Your task to perform on an android device: uninstall "Mercado Libre" Image 0: 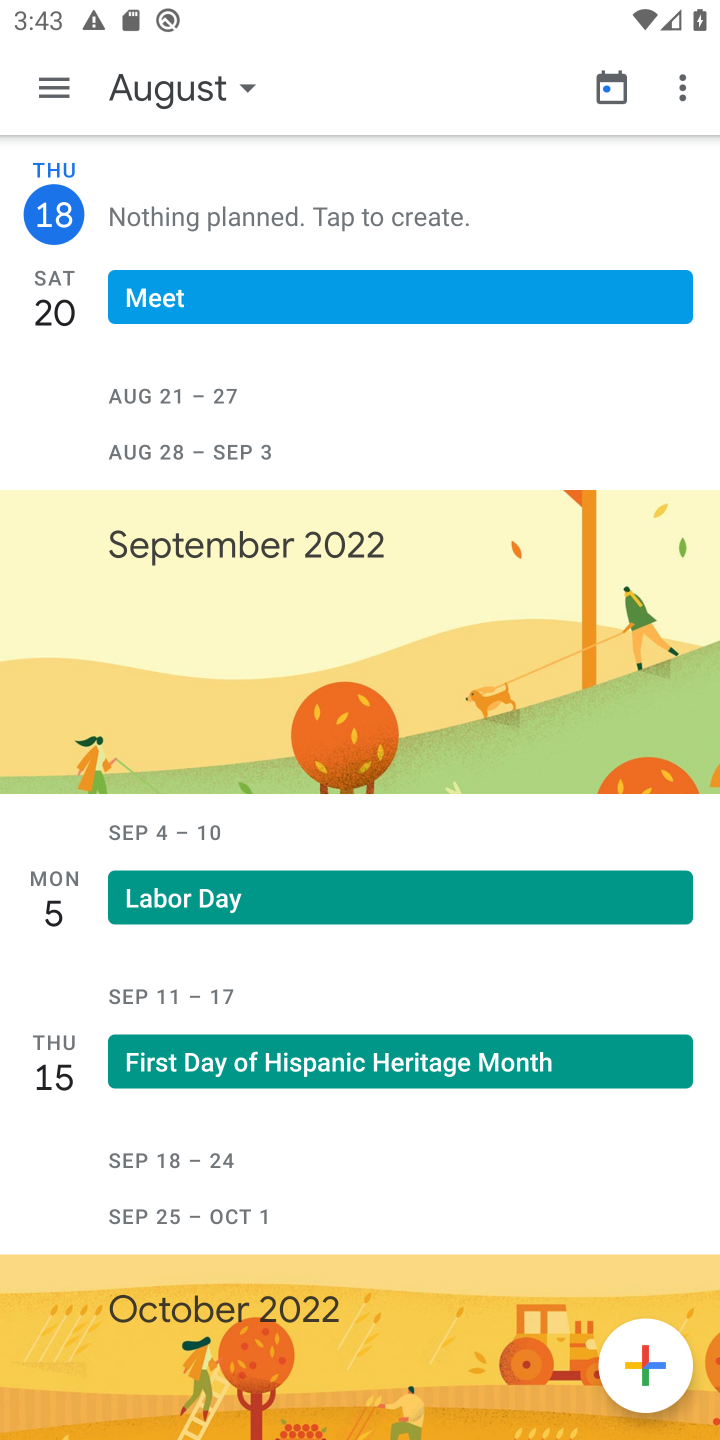
Step 0: press home button
Your task to perform on an android device: uninstall "Mercado Libre" Image 1: 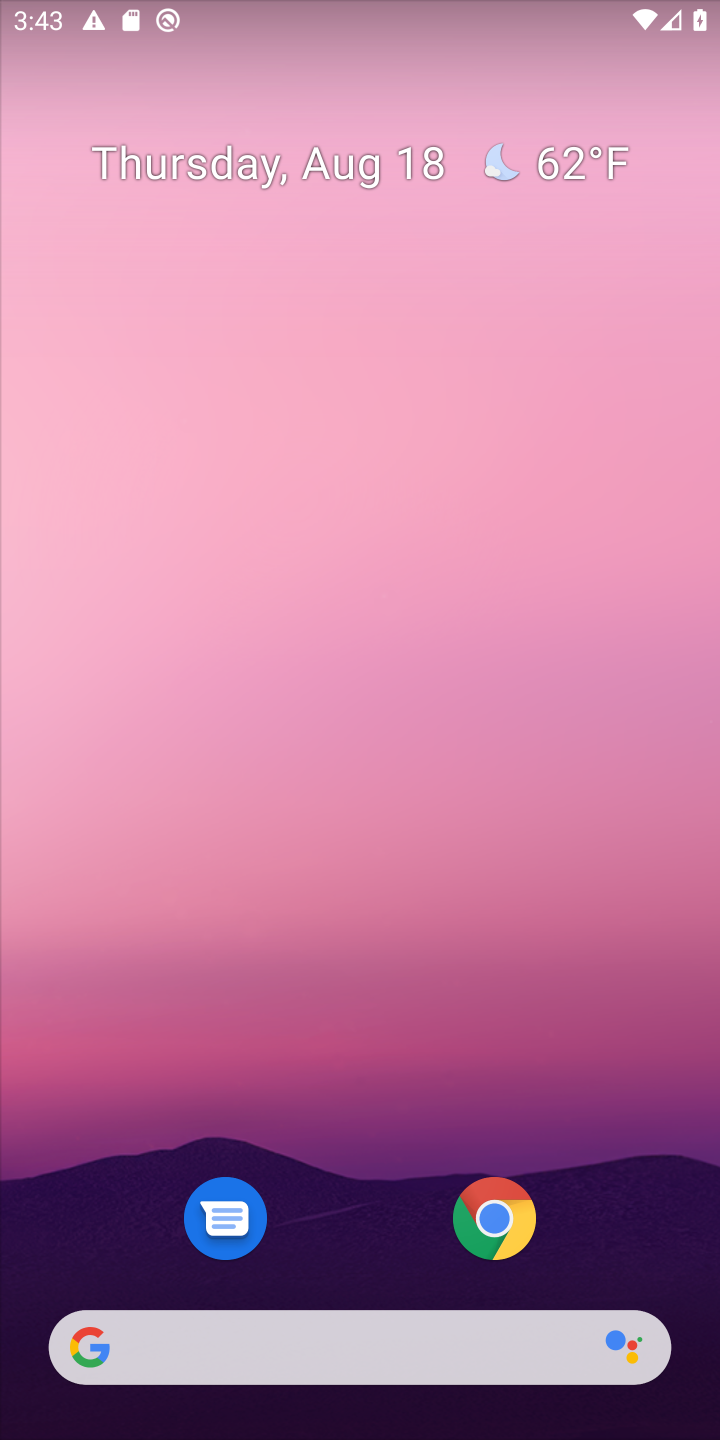
Step 1: drag from (346, 1196) to (326, 343)
Your task to perform on an android device: uninstall "Mercado Libre" Image 2: 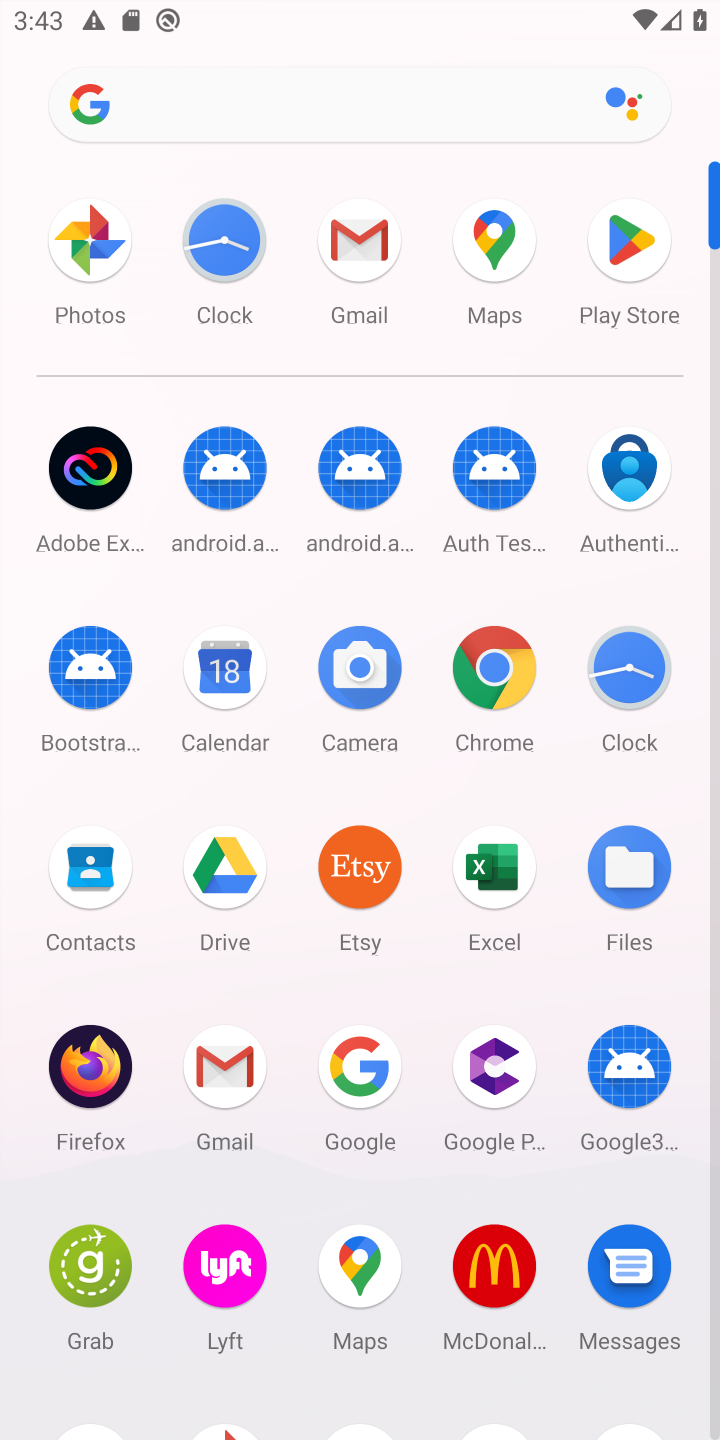
Step 2: click (621, 295)
Your task to perform on an android device: uninstall "Mercado Libre" Image 3: 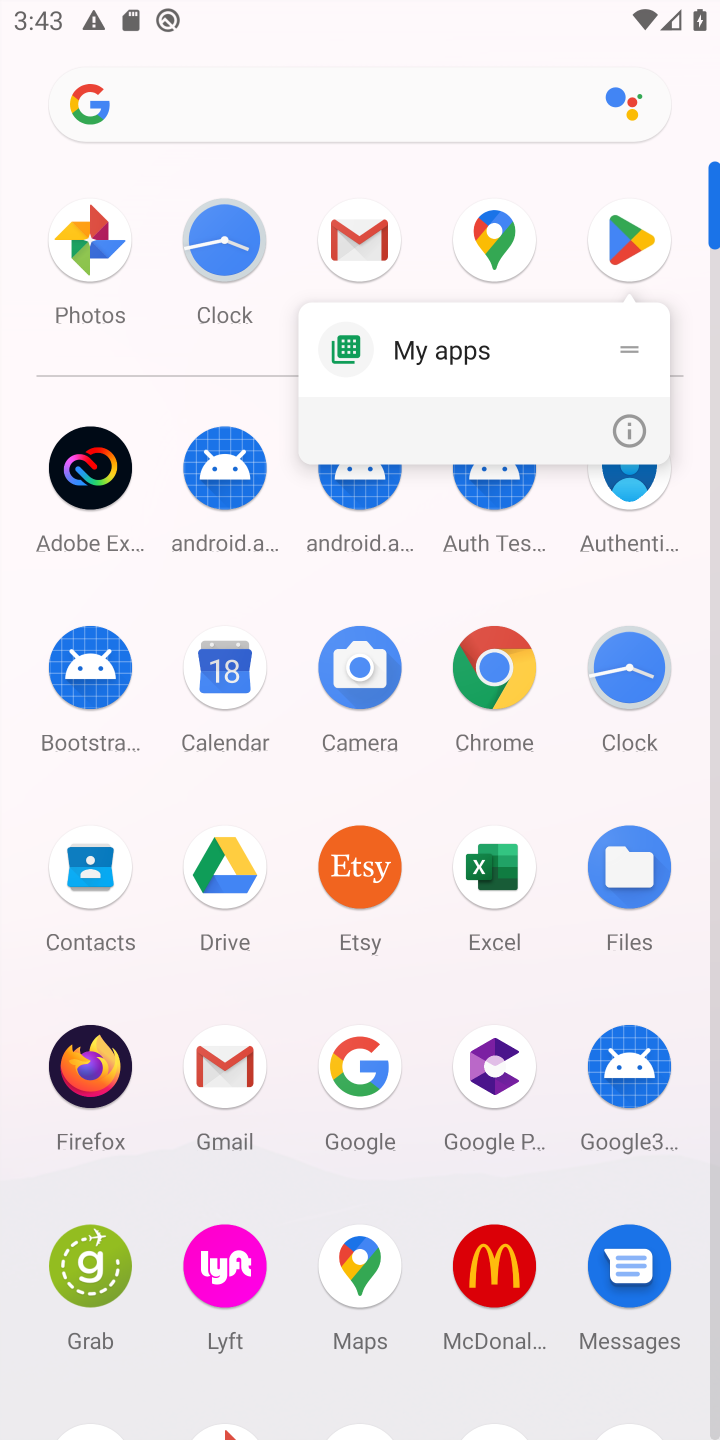
Step 3: click (629, 253)
Your task to perform on an android device: uninstall "Mercado Libre" Image 4: 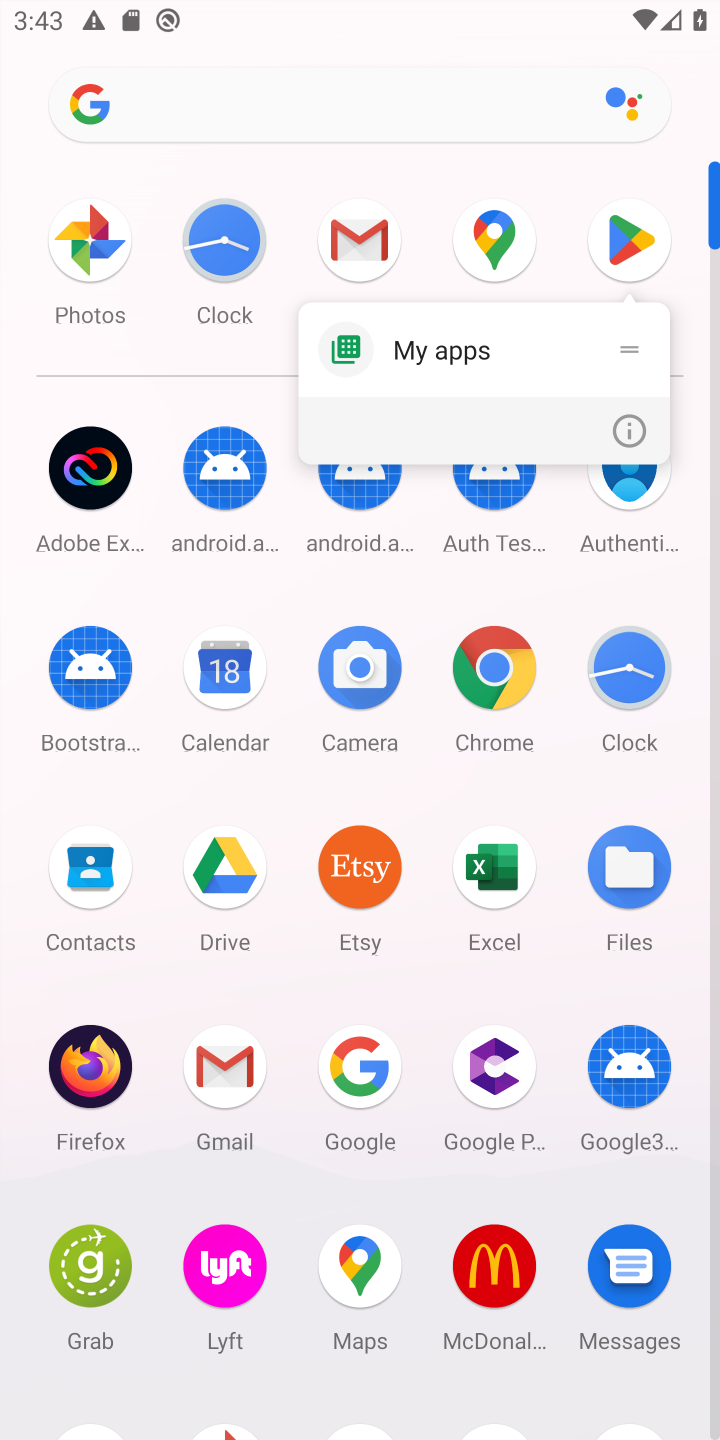
Step 4: click (641, 251)
Your task to perform on an android device: uninstall "Mercado Libre" Image 5: 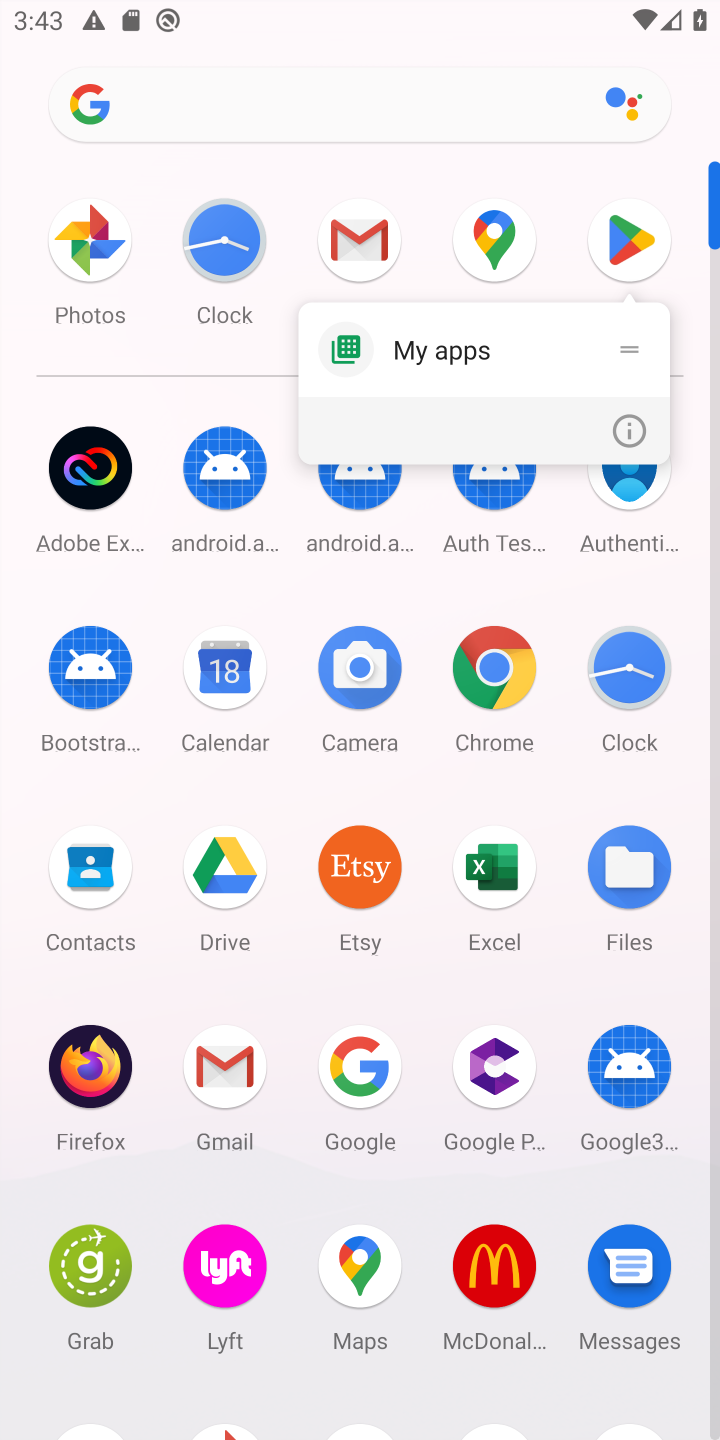
Step 5: click (622, 227)
Your task to perform on an android device: uninstall "Mercado Libre" Image 6: 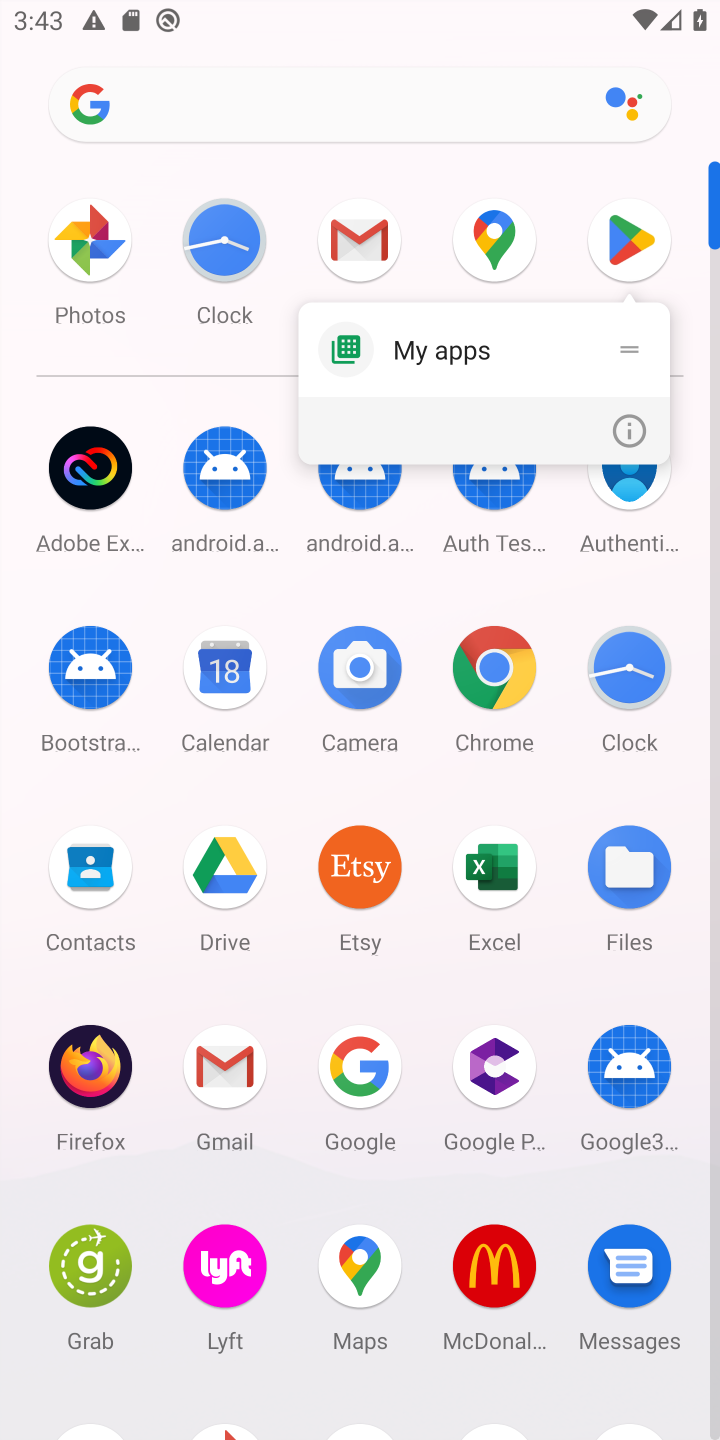
Step 6: click (622, 227)
Your task to perform on an android device: uninstall "Mercado Libre" Image 7: 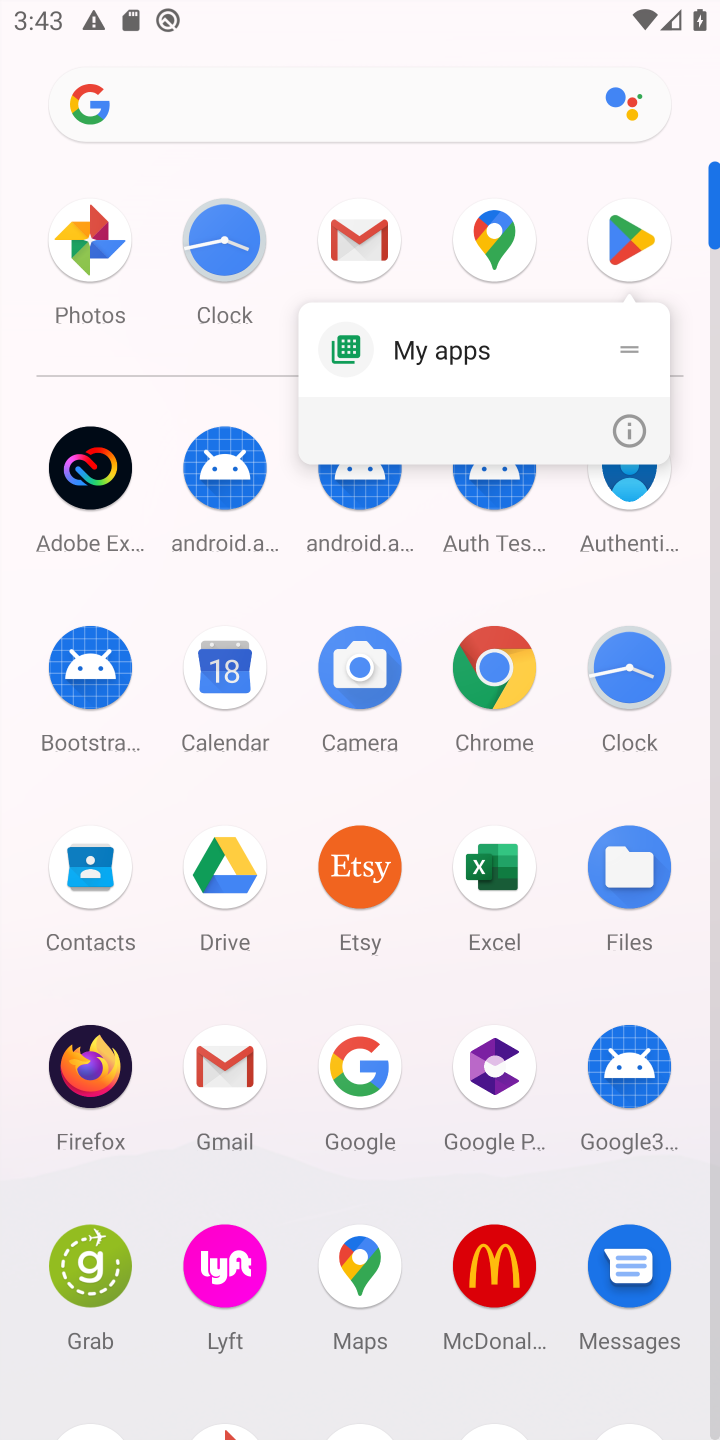
Step 7: click (622, 229)
Your task to perform on an android device: uninstall "Mercado Libre" Image 8: 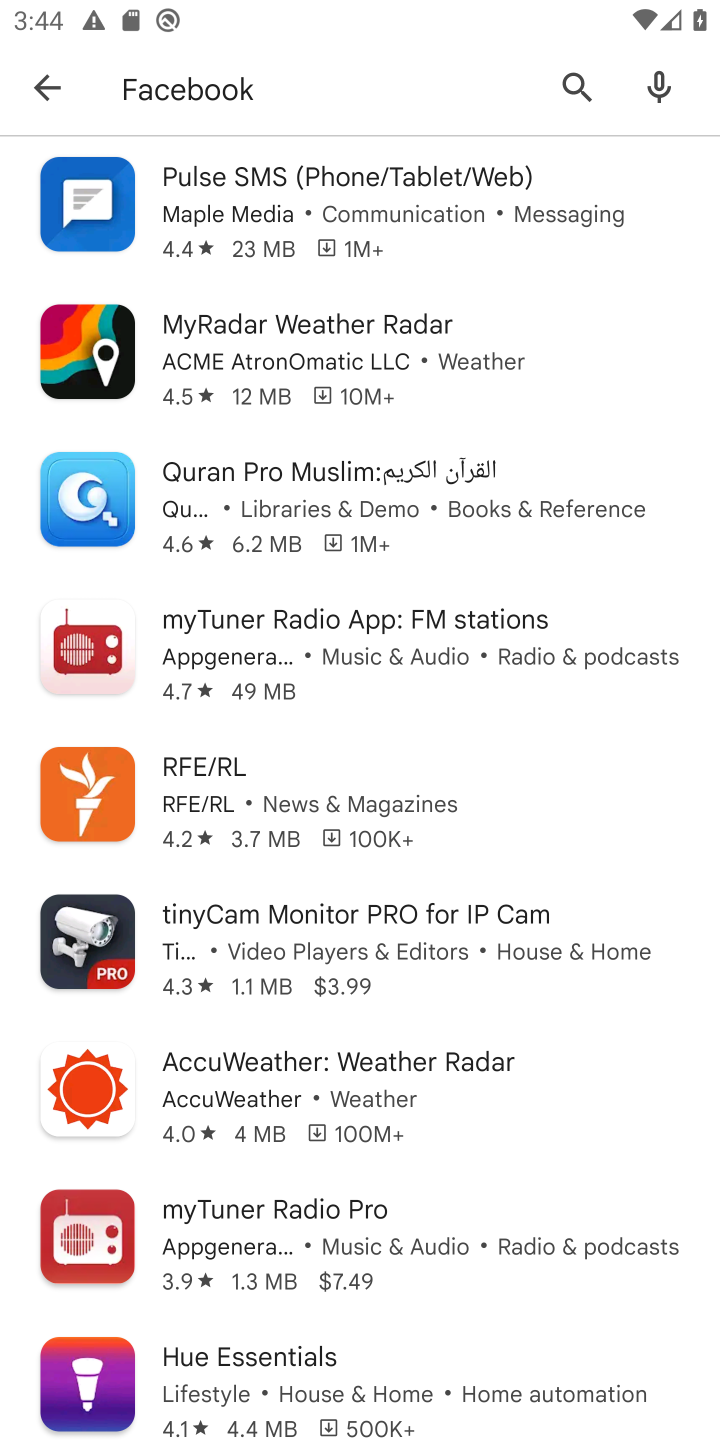
Step 8: click (571, 97)
Your task to perform on an android device: uninstall "Mercado Libre" Image 9: 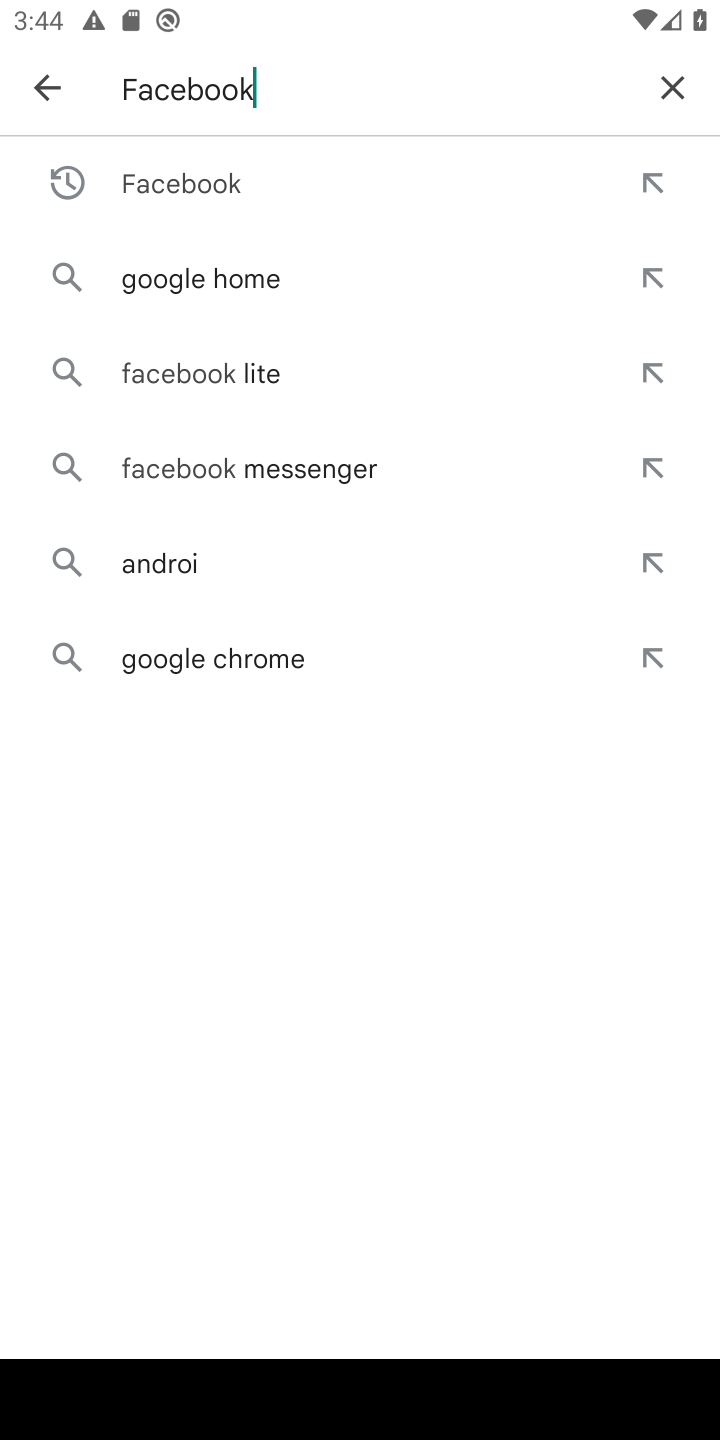
Step 9: click (663, 78)
Your task to perform on an android device: uninstall "Mercado Libre" Image 10: 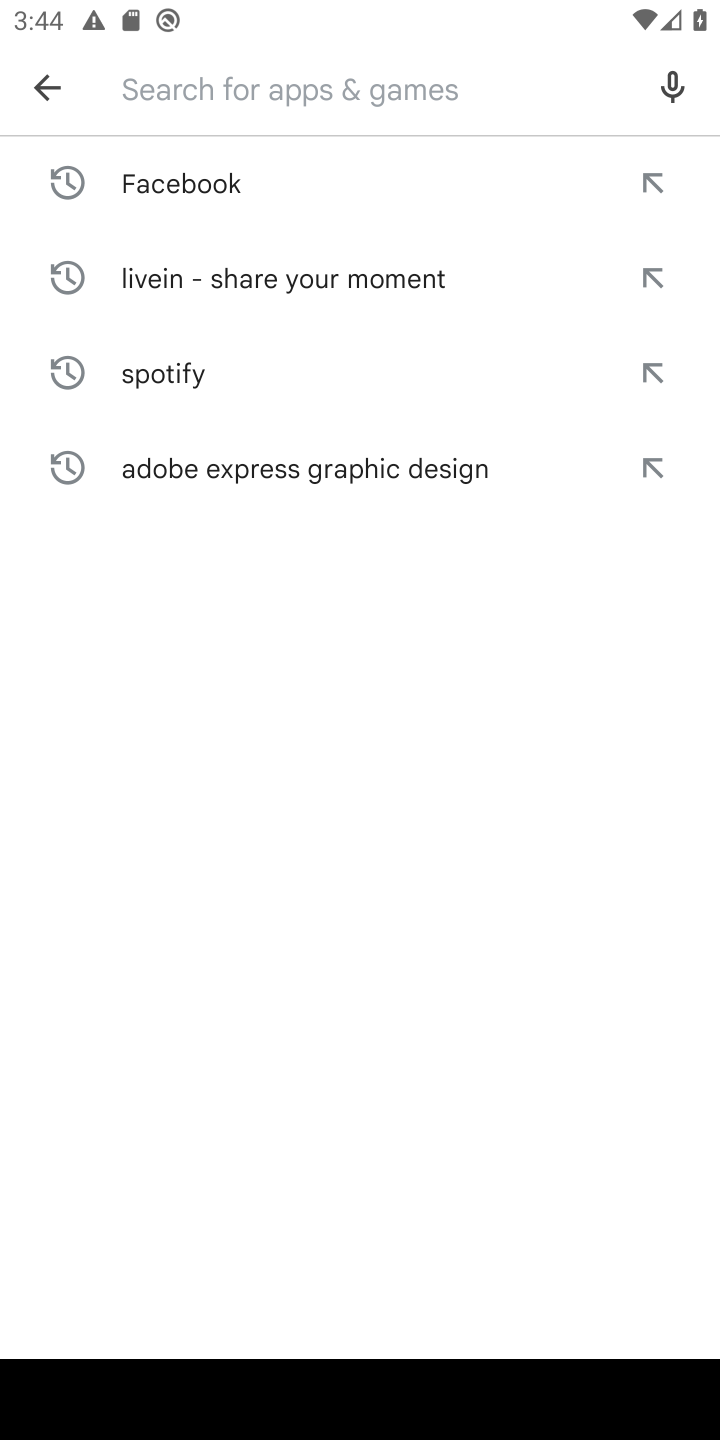
Step 10: type "Mercado Libre"
Your task to perform on an android device: uninstall "Mercado Libre" Image 11: 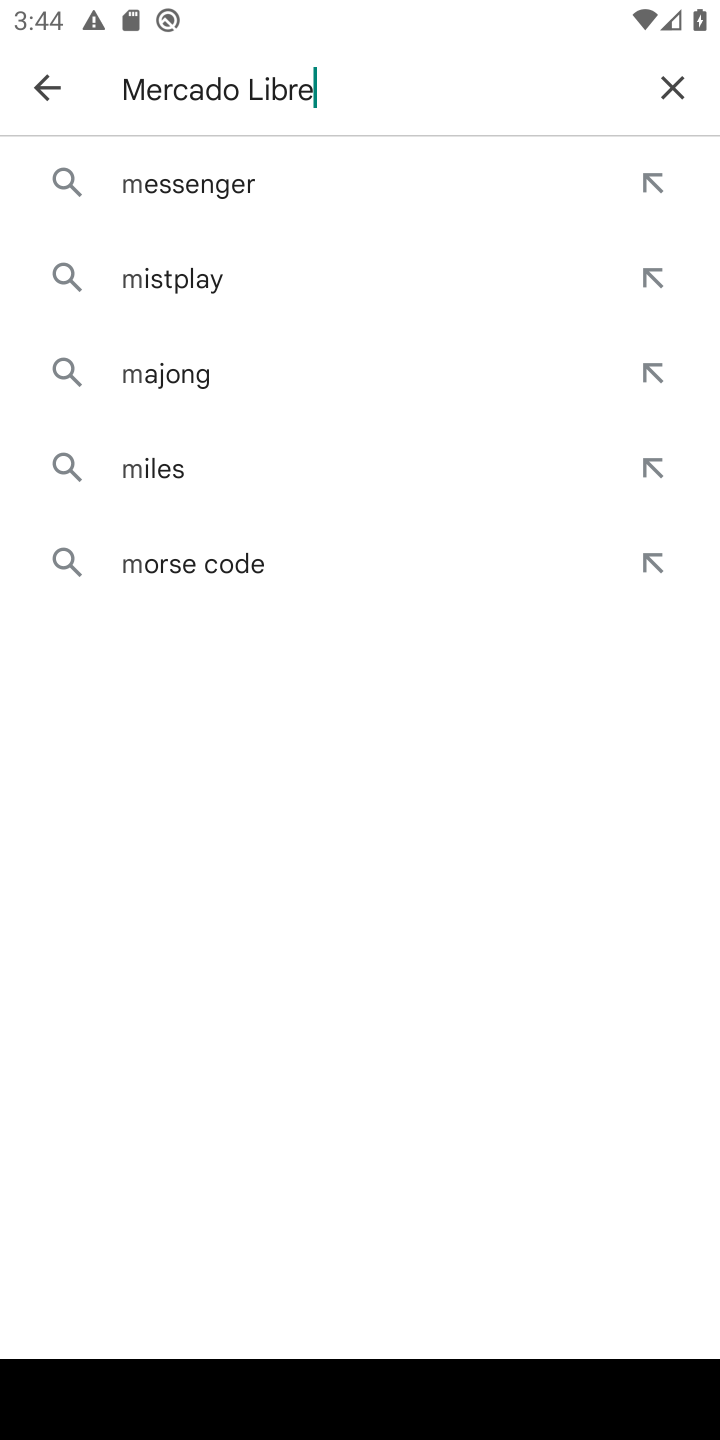
Step 11: type ""
Your task to perform on an android device: uninstall "Mercado Libre" Image 12: 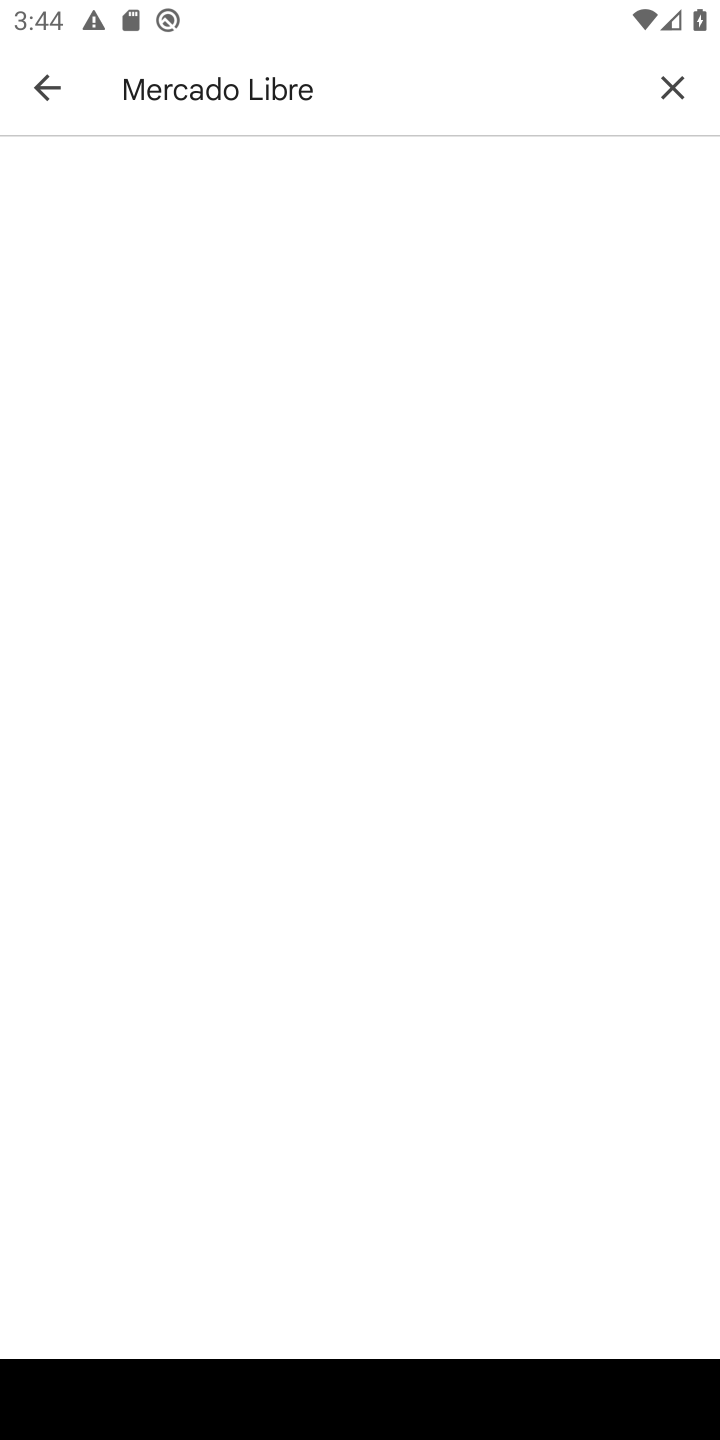
Step 12: task complete